Your task to perform on an android device: Go to network settings Image 0: 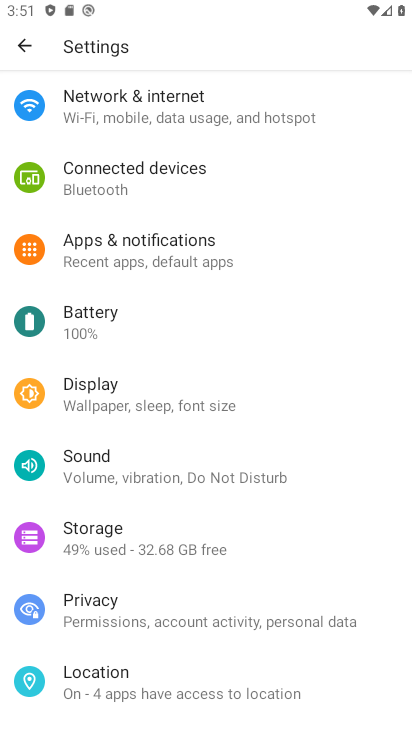
Step 0: task complete